Your task to perform on an android device: toggle pop-ups in chrome Image 0: 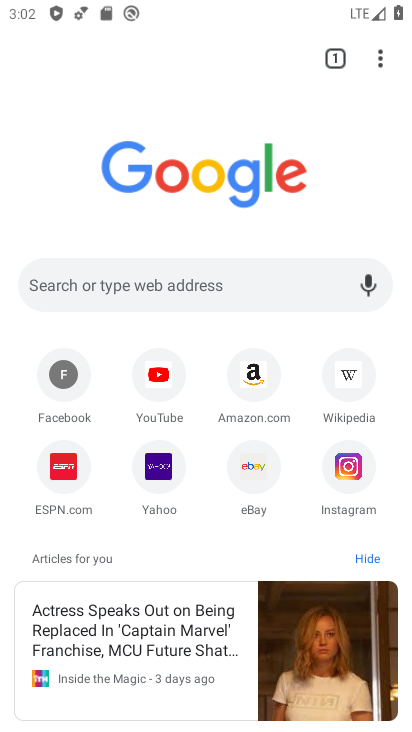
Step 0: click (380, 59)
Your task to perform on an android device: toggle pop-ups in chrome Image 1: 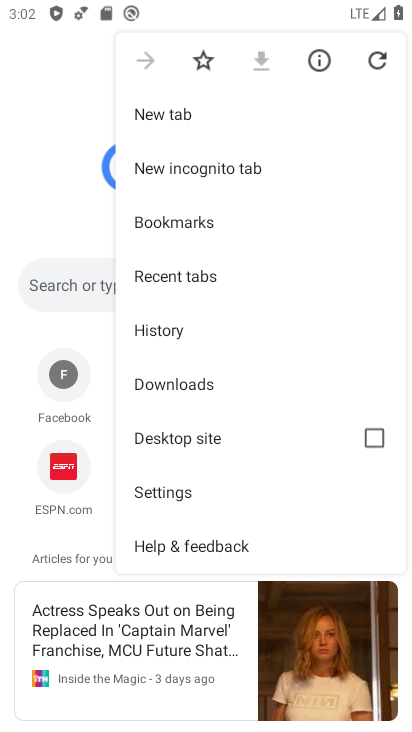
Step 1: click (176, 492)
Your task to perform on an android device: toggle pop-ups in chrome Image 2: 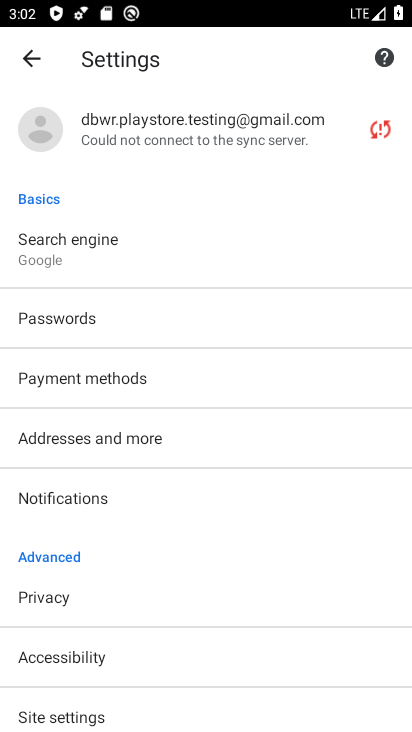
Step 2: drag from (112, 565) to (184, 489)
Your task to perform on an android device: toggle pop-ups in chrome Image 3: 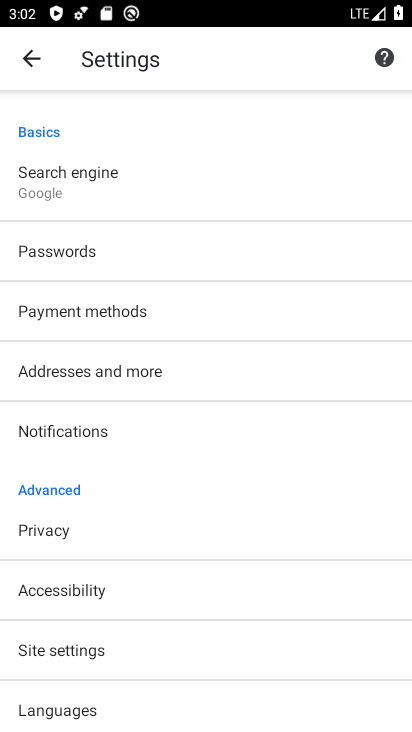
Step 3: click (74, 647)
Your task to perform on an android device: toggle pop-ups in chrome Image 4: 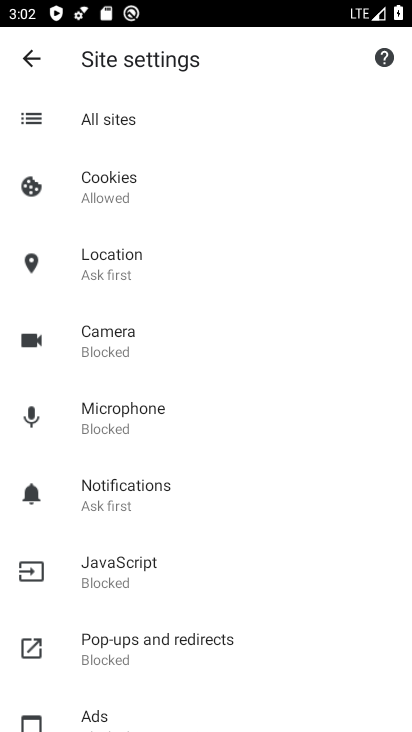
Step 4: click (126, 645)
Your task to perform on an android device: toggle pop-ups in chrome Image 5: 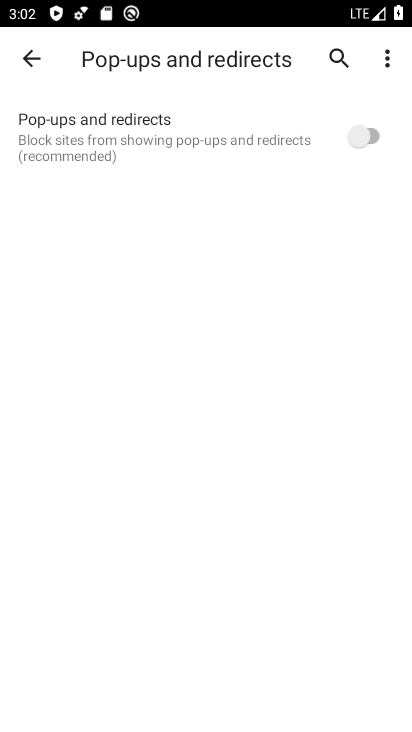
Step 5: click (366, 138)
Your task to perform on an android device: toggle pop-ups in chrome Image 6: 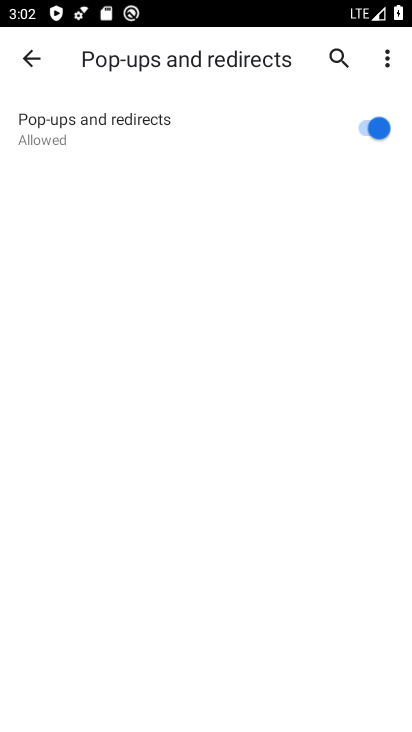
Step 6: task complete